Your task to perform on an android device: Open my contact list Image 0: 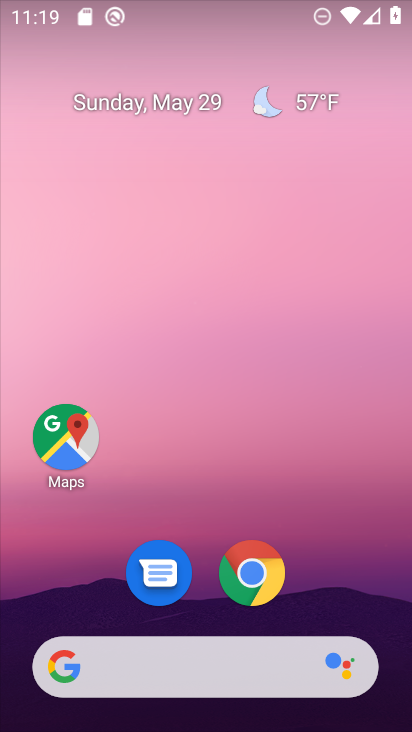
Step 0: drag from (174, 696) to (190, 3)
Your task to perform on an android device: Open my contact list Image 1: 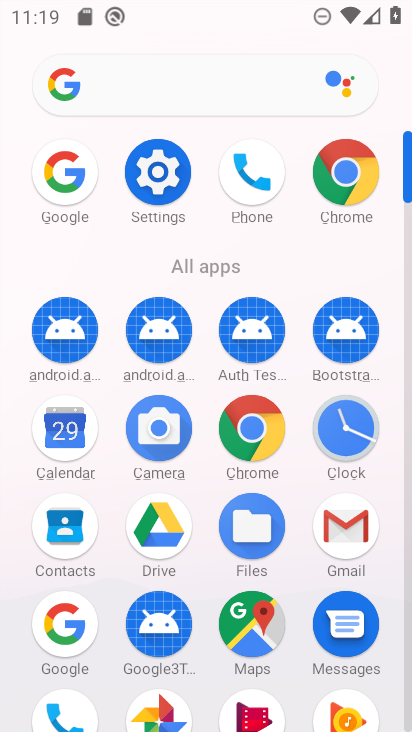
Step 1: click (75, 540)
Your task to perform on an android device: Open my contact list Image 2: 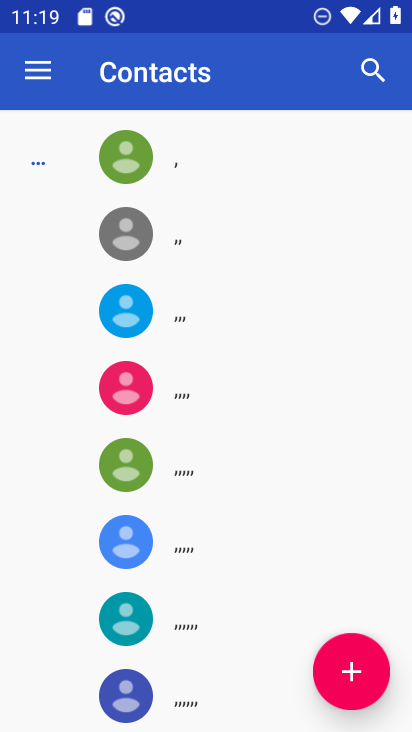
Step 2: task complete